Your task to perform on an android device: change the upload size in google photos Image 0: 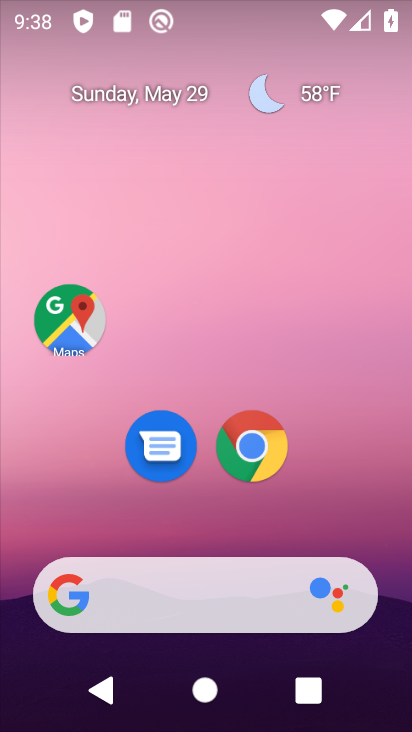
Step 0: press home button
Your task to perform on an android device: change the upload size in google photos Image 1: 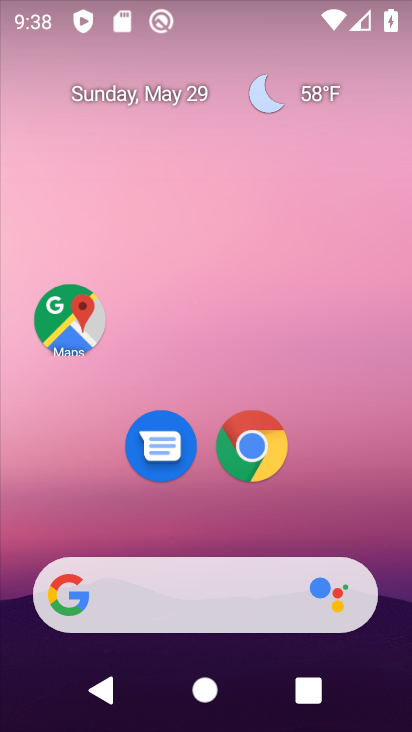
Step 1: drag from (175, 559) to (263, 153)
Your task to perform on an android device: change the upload size in google photos Image 2: 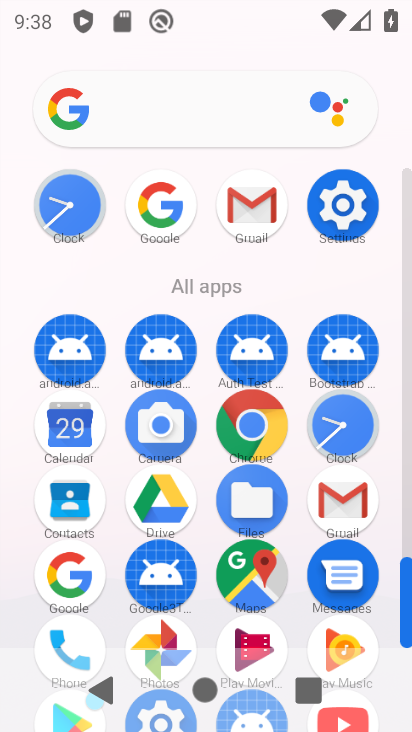
Step 2: click (166, 633)
Your task to perform on an android device: change the upload size in google photos Image 3: 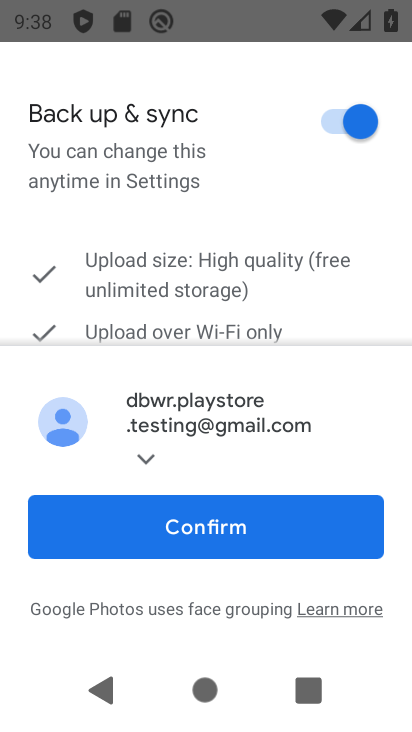
Step 3: click (229, 525)
Your task to perform on an android device: change the upload size in google photos Image 4: 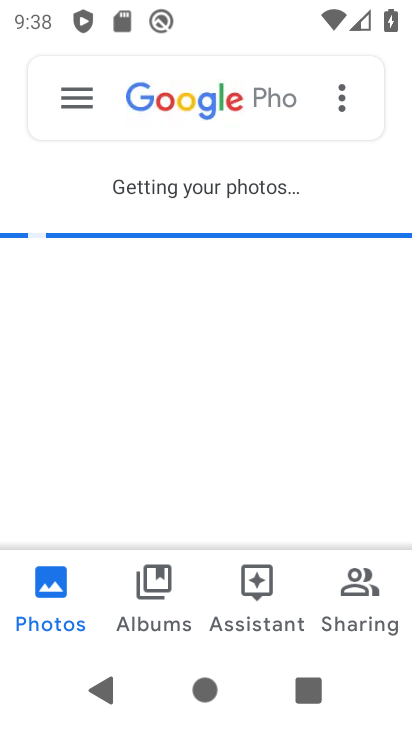
Step 4: click (55, 87)
Your task to perform on an android device: change the upload size in google photos Image 5: 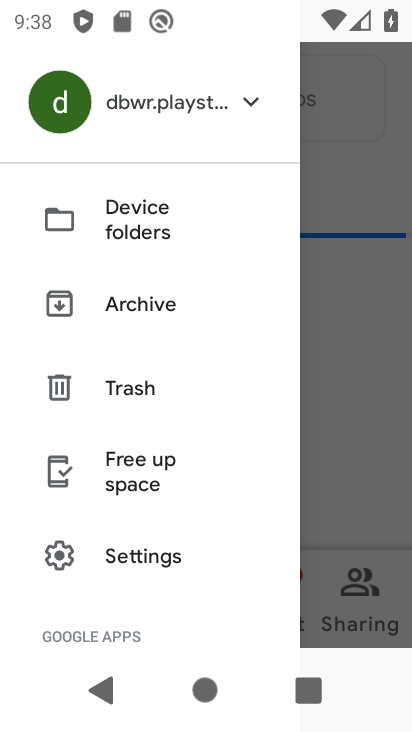
Step 5: click (134, 569)
Your task to perform on an android device: change the upload size in google photos Image 6: 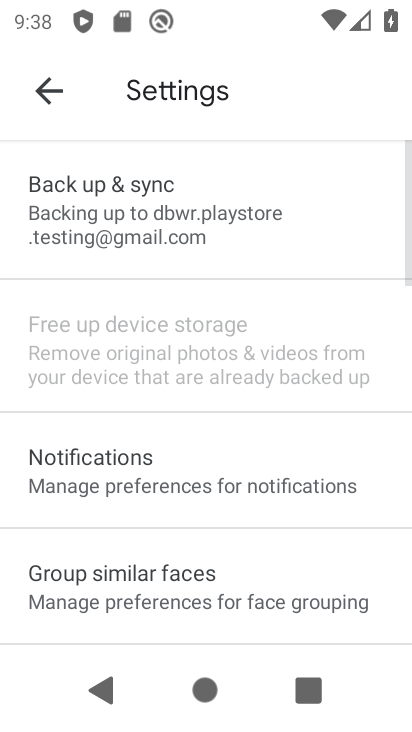
Step 6: click (132, 207)
Your task to perform on an android device: change the upload size in google photos Image 7: 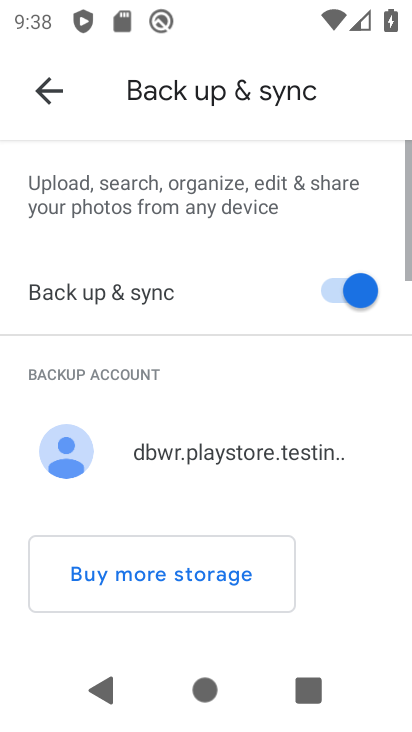
Step 7: drag from (142, 629) to (184, 146)
Your task to perform on an android device: change the upload size in google photos Image 8: 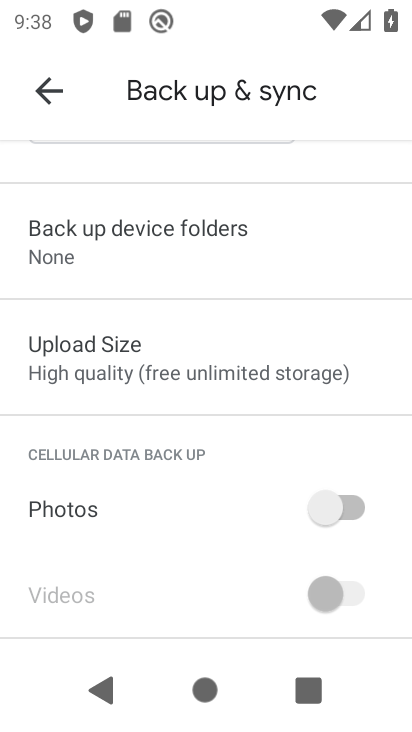
Step 8: click (100, 364)
Your task to perform on an android device: change the upload size in google photos Image 9: 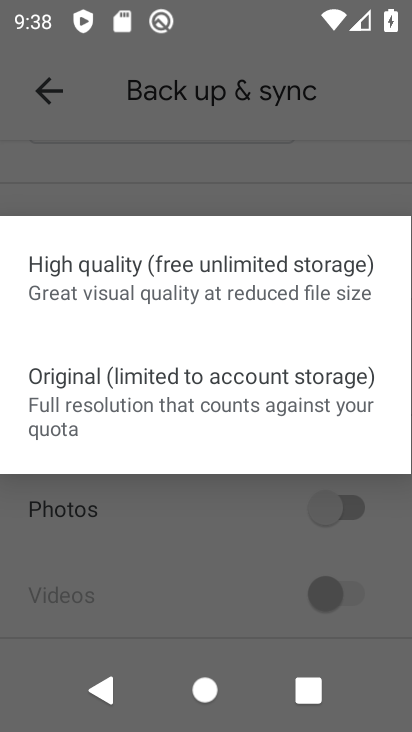
Step 9: click (111, 401)
Your task to perform on an android device: change the upload size in google photos Image 10: 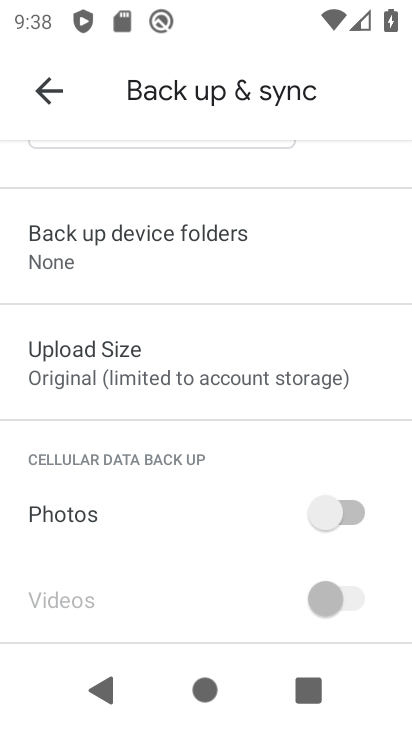
Step 10: task complete